Your task to perform on an android device: toggle notification dots Image 0: 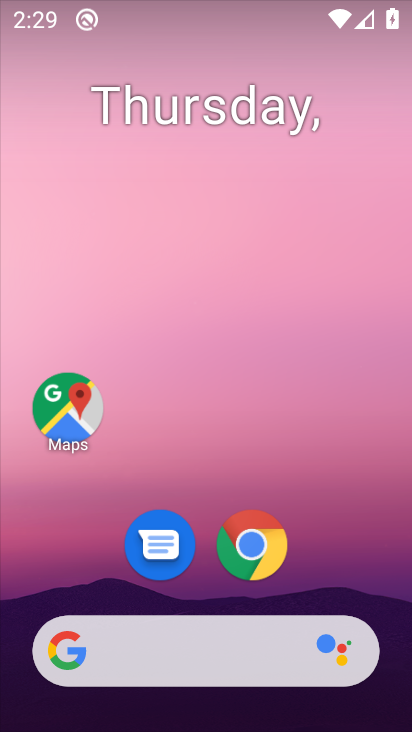
Step 0: drag from (247, 611) to (229, 239)
Your task to perform on an android device: toggle notification dots Image 1: 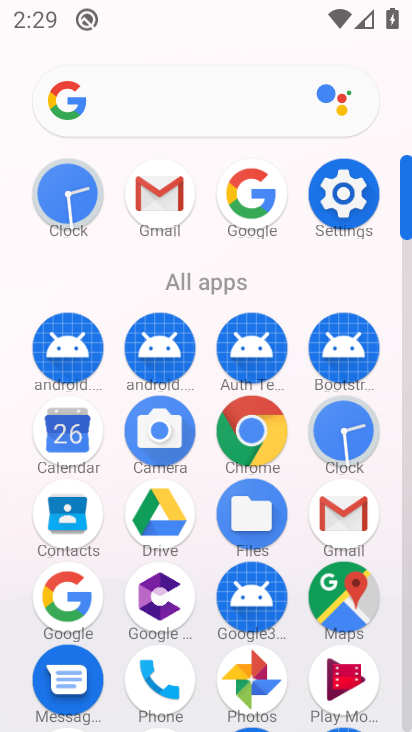
Step 1: click (332, 185)
Your task to perform on an android device: toggle notification dots Image 2: 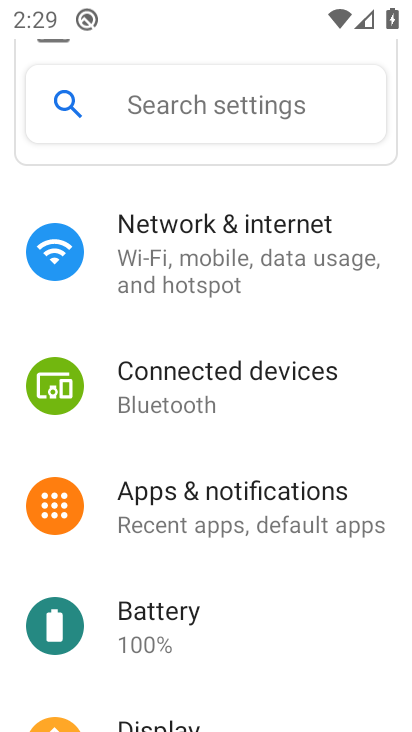
Step 2: click (204, 485)
Your task to perform on an android device: toggle notification dots Image 3: 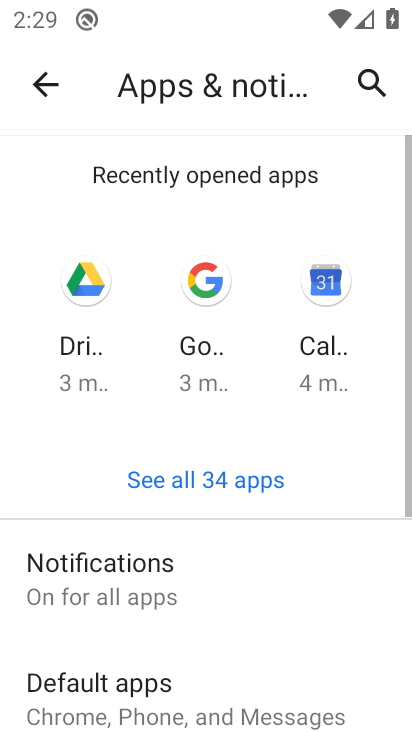
Step 3: click (143, 587)
Your task to perform on an android device: toggle notification dots Image 4: 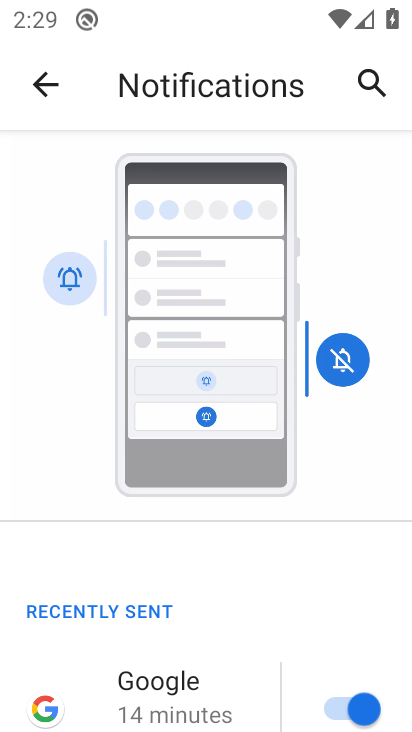
Step 4: drag from (312, 583) to (406, 208)
Your task to perform on an android device: toggle notification dots Image 5: 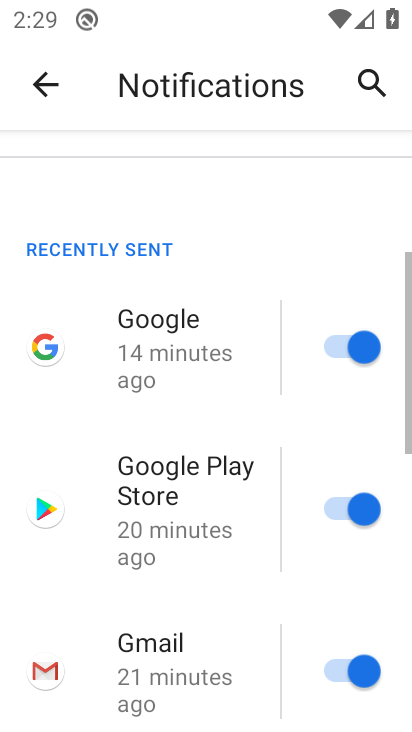
Step 5: drag from (222, 597) to (177, 185)
Your task to perform on an android device: toggle notification dots Image 6: 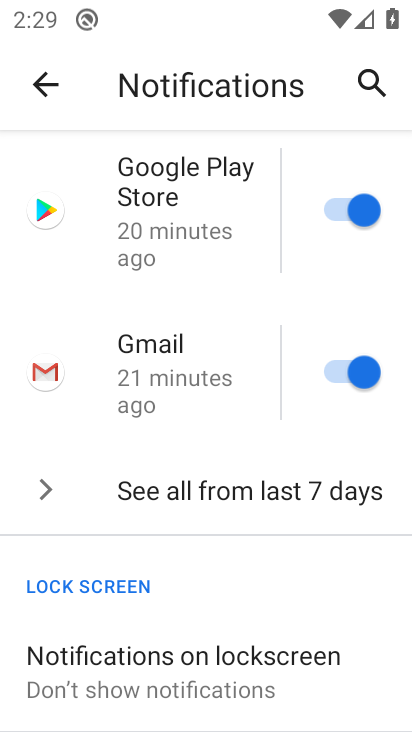
Step 6: drag from (200, 676) to (155, 291)
Your task to perform on an android device: toggle notification dots Image 7: 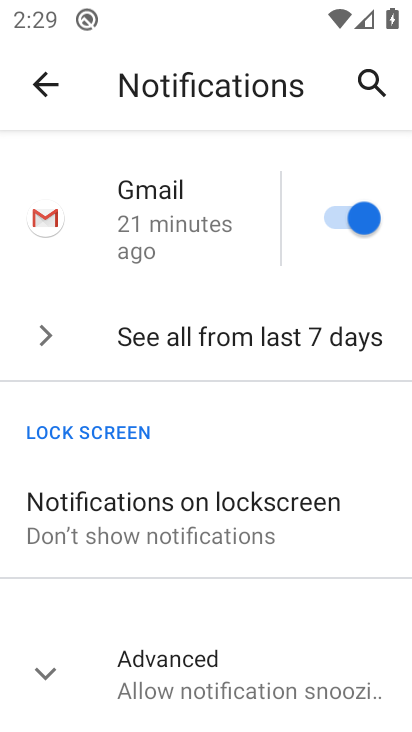
Step 7: click (166, 665)
Your task to perform on an android device: toggle notification dots Image 8: 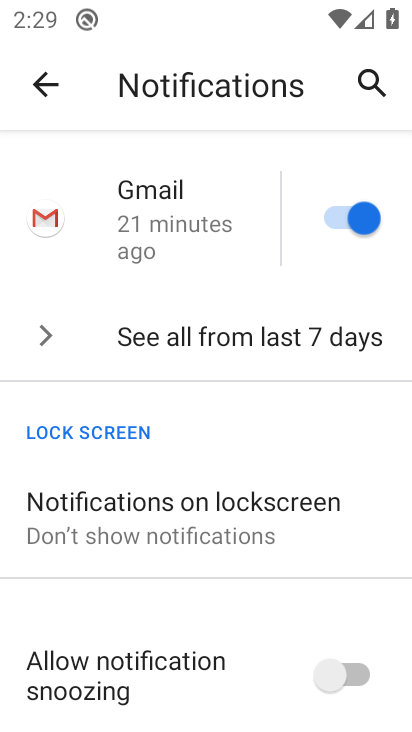
Step 8: drag from (175, 698) to (194, 186)
Your task to perform on an android device: toggle notification dots Image 9: 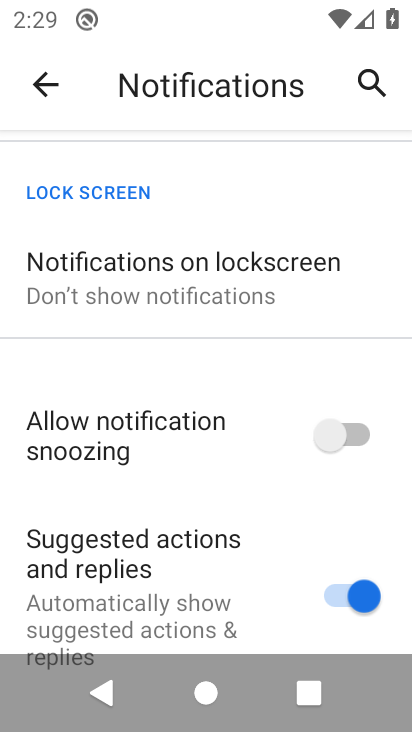
Step 9: drag from (277, 589) to (309, 169)
Your task to perform on an android device: toggle notification dots Image 10: 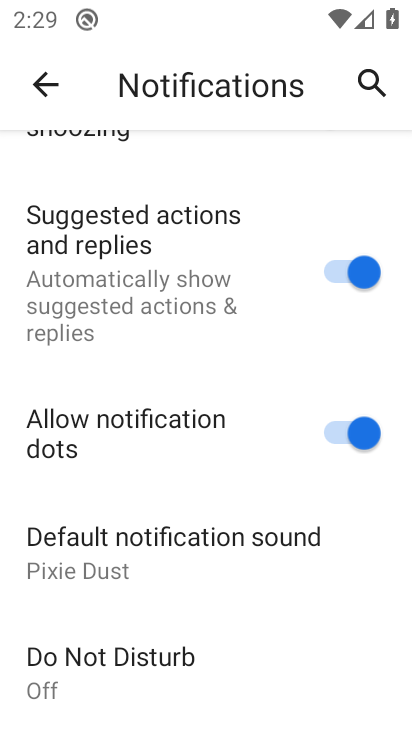
Step 10: click (343, 428)
Your task to perform on an android device: toggle notification dots Image 11: 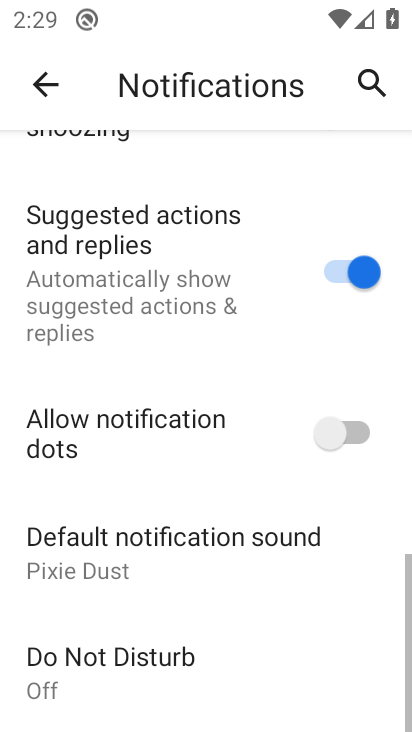
Step 11: task complete